Your task to perform on an android device: toggle data saver in the chrome app Image 0: 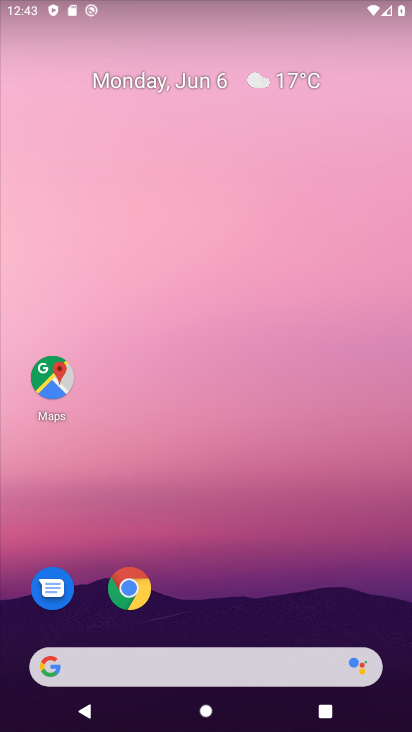
Step 0: click (130, 594)
Your task to perform on an android device: toggle data saver in the chrome app Image 1: 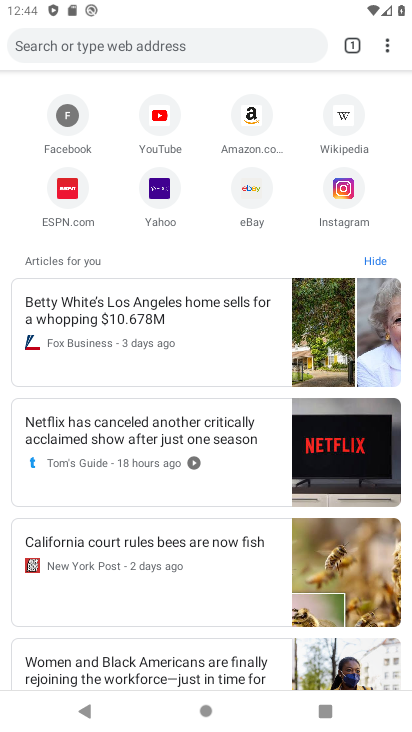
Step 1: click (381, 39)
Your task to perform on an android device: toggle data saver in the chrome app Image 2: 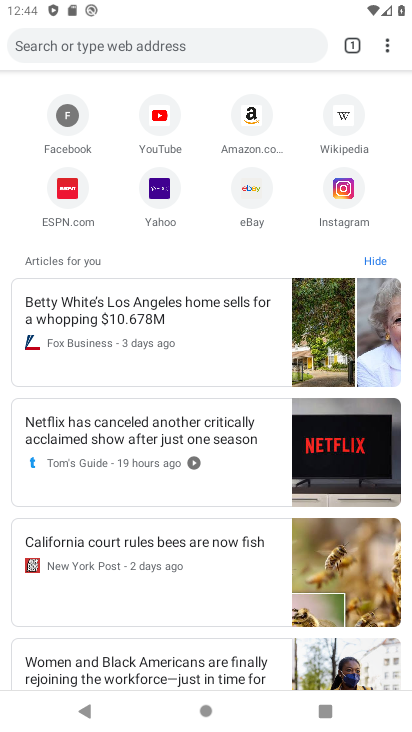
Step 2: click (384, 43)
Your task to perform on an android device: toggle data saver in the chrome app Image 3: 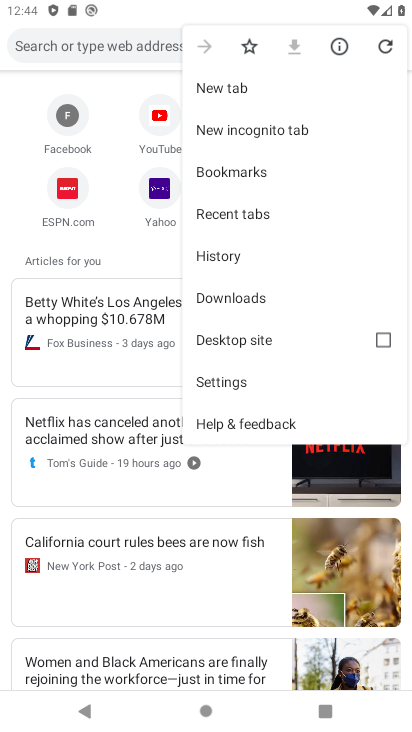
Step 3: click (224, 376)
Your task to perform on an android device: toggle data saver in the chrome app Image 4: 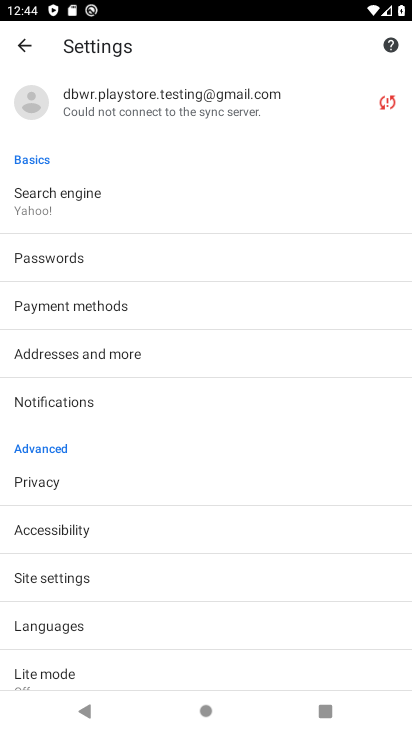
Step 4: click (58, 668)
Your task to perform on an android device: toggle data saver in the chrome app Image 5: 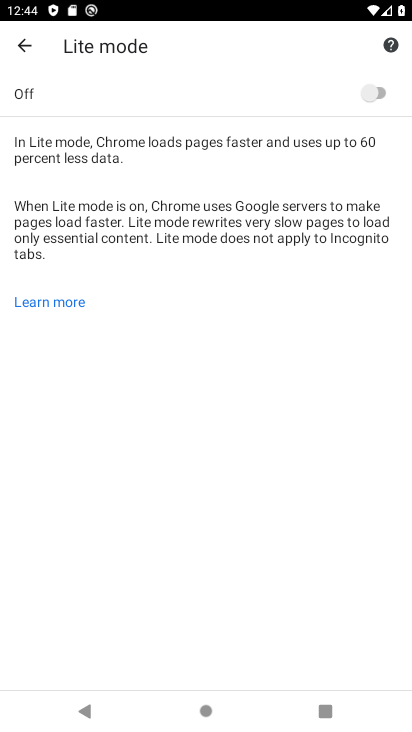
Step 5: click (376, 93)
Your task to perform on an android device: toggle data saver in the chrome app Image 6: 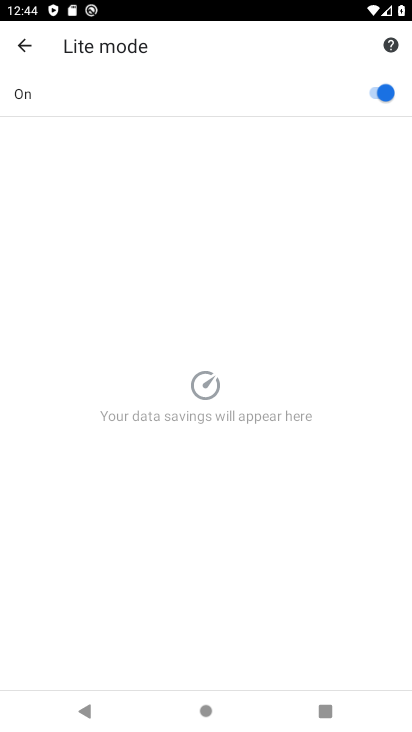
Step 6: task complete